Your task to perform on an android device: find which apps use the phone's location Image 0: 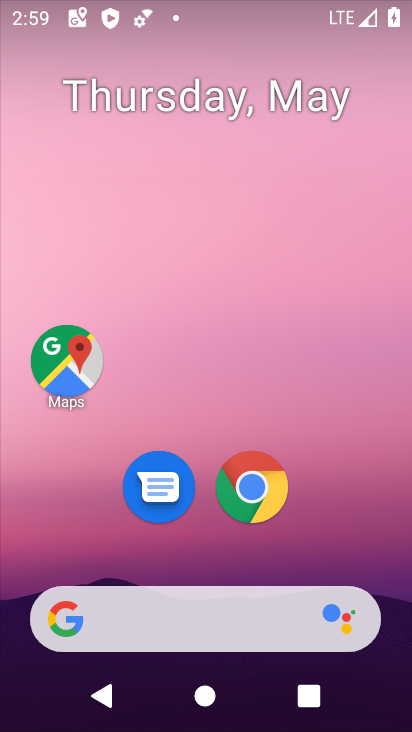
Step 0: drag from (244, 608) to (306, 178)
Your task to perform on an android device: find which apps use the phone's location Image 1: 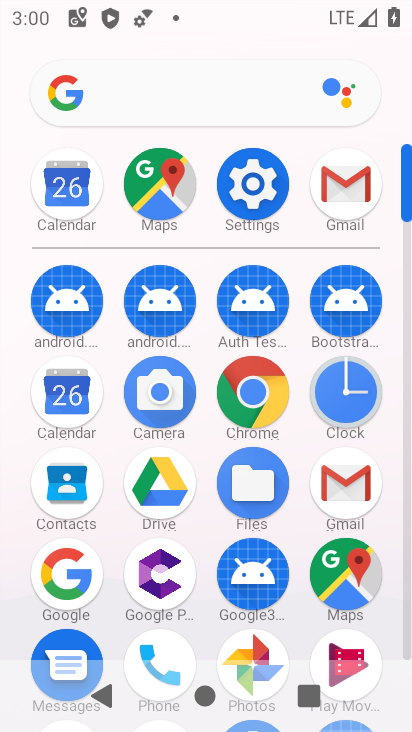
Step 1: click (261, 212)
Your task to perform on an android device: find which apps use the phone's location Image 2: 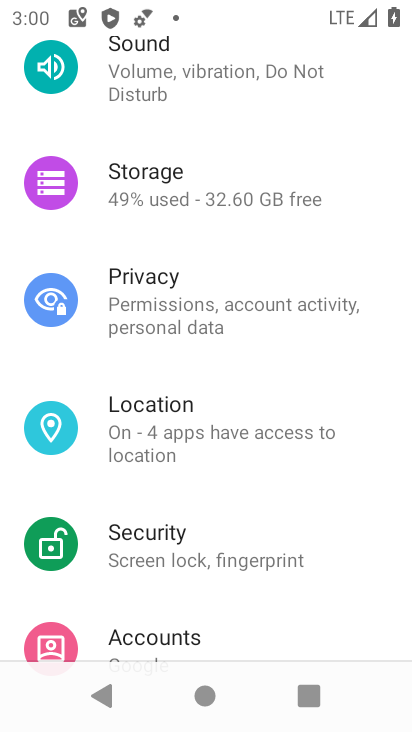
Step 2: click (204, 418)
Your task to perform on an android device: find which apps use the phone's location Image 3: 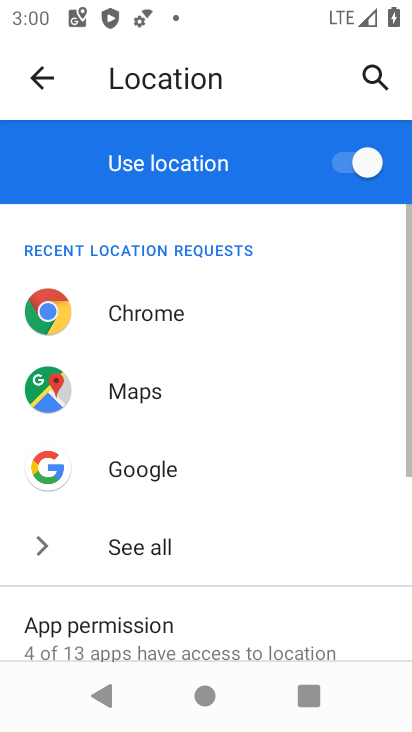
Step 3: click (139, 646)
Your task to perform on an android device: find which apps use the phone's location Image 4: 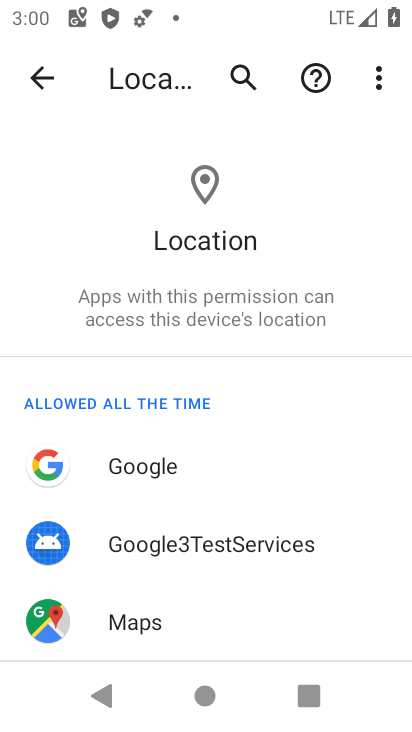
Step 4: task complete